Your task to perform on an android device: snooze an email in the gmail app Image 0: 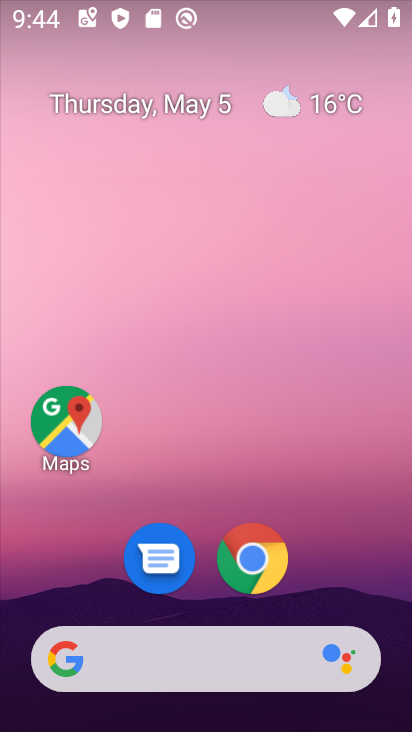
Step 0: drag from (373, 596) to (301, 5)
Your task to perform on an android device: snooze an email in the gmail app Image 1: 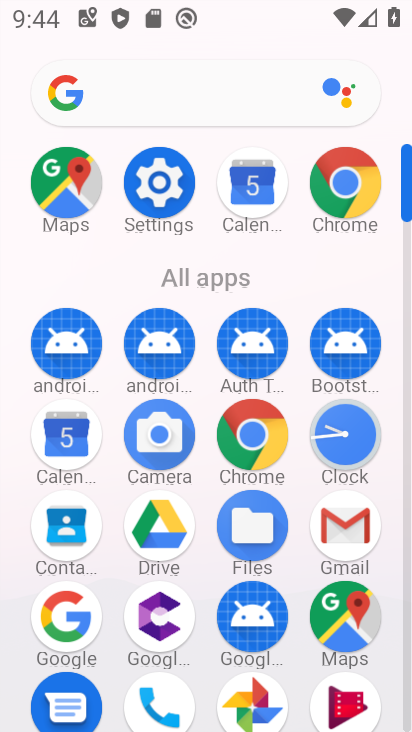
Step 1: click (352, 526)
Your task to perform on an android device: snooze an email in the gmail app Image 2: 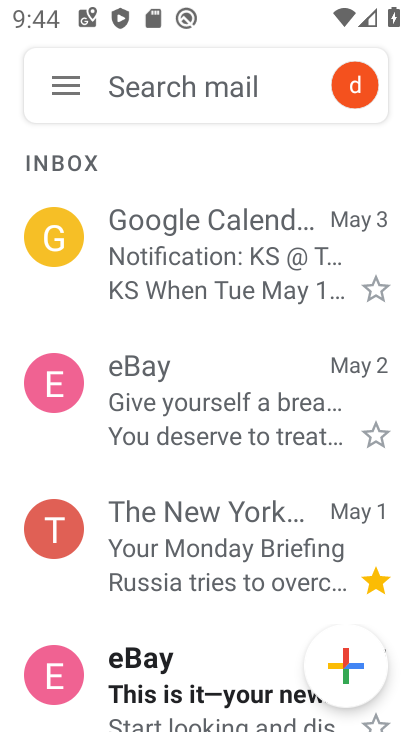
Step 2: click (209, 433)
Your task to perform on an android device: snooze an email in the gmail app Image 3: 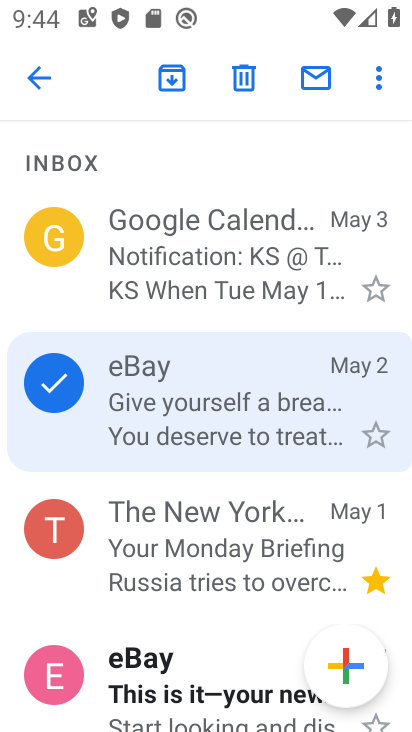
Step 3: click (379, 87)
Your task to perform on an android device: snooze an email in the gmail app Image 4: 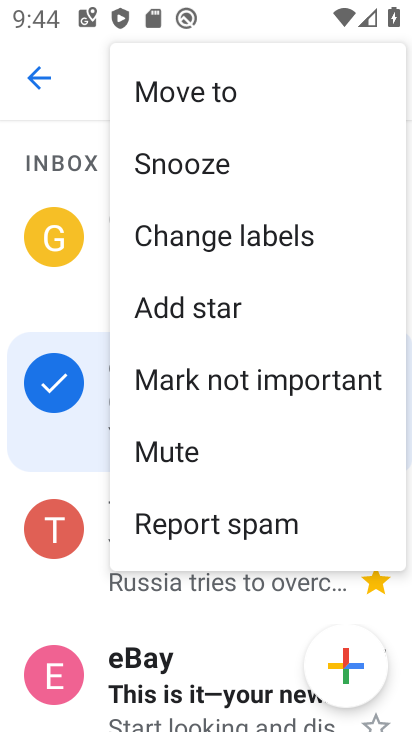
Step 4: click (309, 171)
Your task to perform on an android device: snooze an email in the gmail app Image 5: 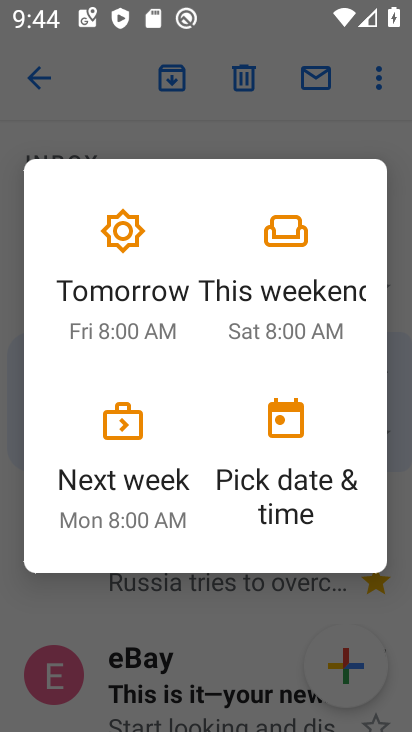
Step 5: click (269, 303)
Your task to perform on an android device: snooze an email in the gmail app Image 6: 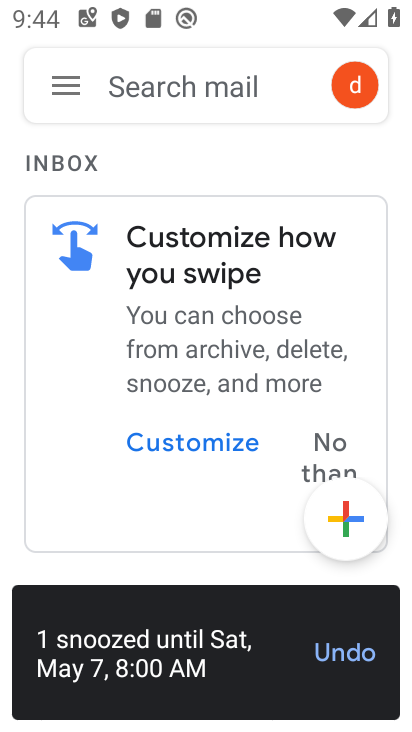
Step 6: task complete